Your task to perform on an android device: turn pop-ups off in chrome Image 0: 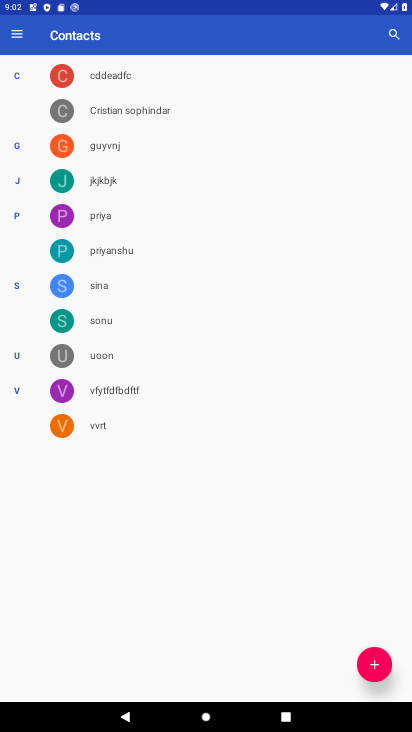
Step 0: press home button
Your task to perform on an android device: turn pop-ups off in chrome Image 1: 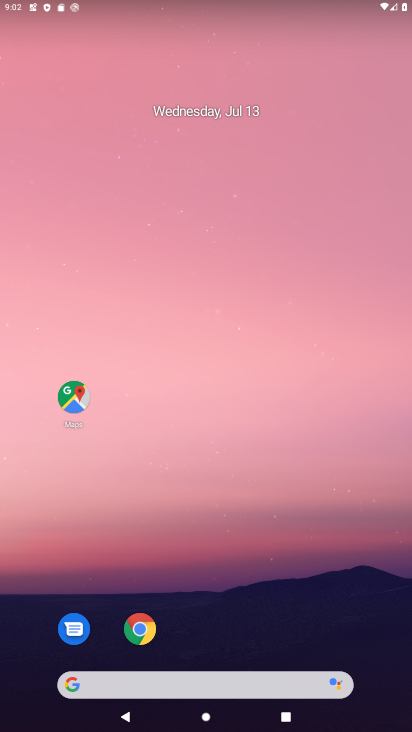
Step 1: drag from (249, 631) to (214, 92)
Your task to perform on an android device: turn pop-ups off in chrome Image 2: 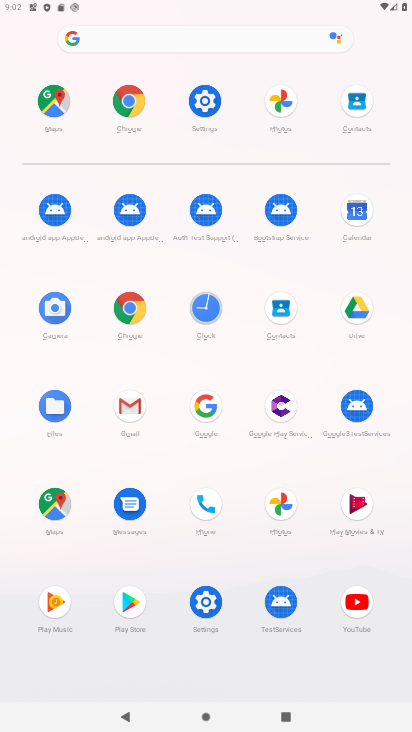
Step 2: click (141, 311)
Your task to perform on an android device: turn pop-ups off in chrome Image 3: 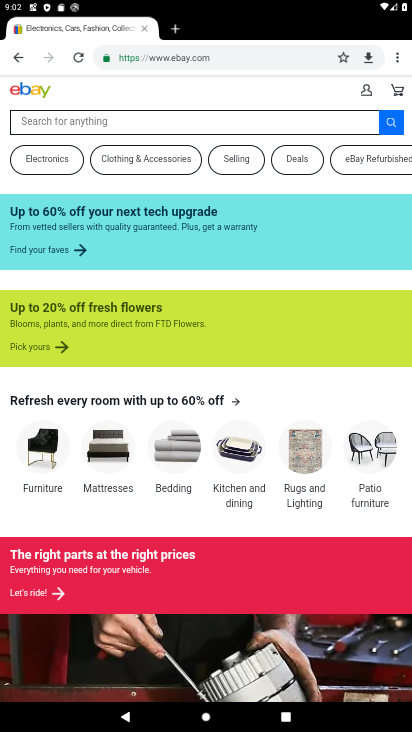
Step 3: drag from (396, 55) to (340, 390)
Your task to perform on an android device: turn pop-ups off in chrome Image 4: 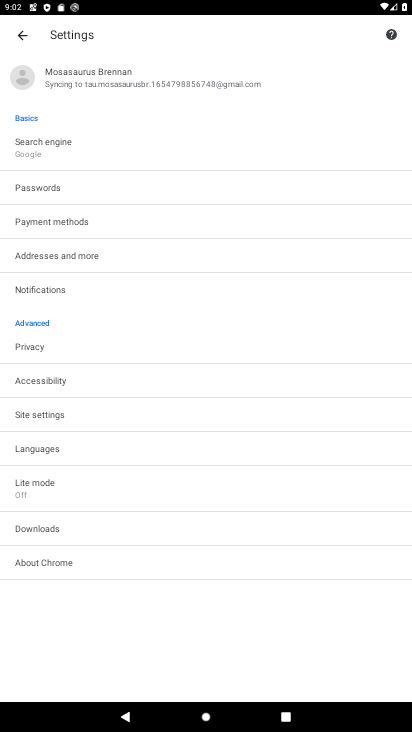
Step 4: click (47, 414)
Your task to perform on an android device: turn pop-ups off in chrome Image 5: 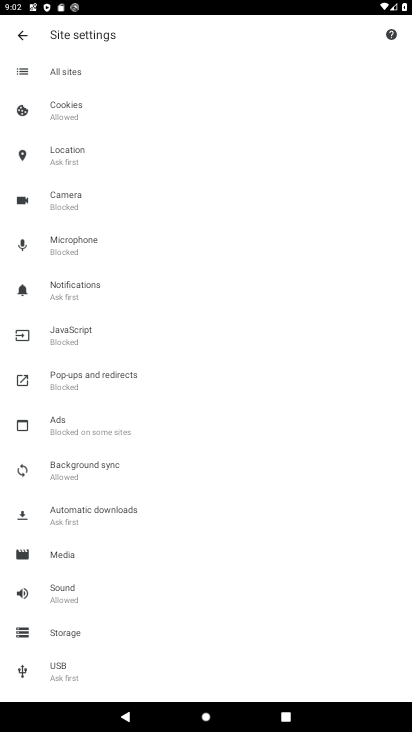
Step 5: click (75, 382)
Your task to perform on an android device: turn pop-ups off in chrome Image 6: 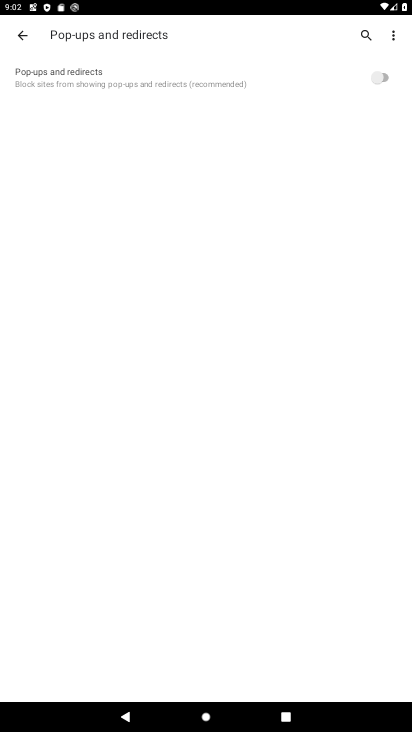
Step 6: task complete